Your task to perform on an android device: turn off notifications in google photos Image 0: 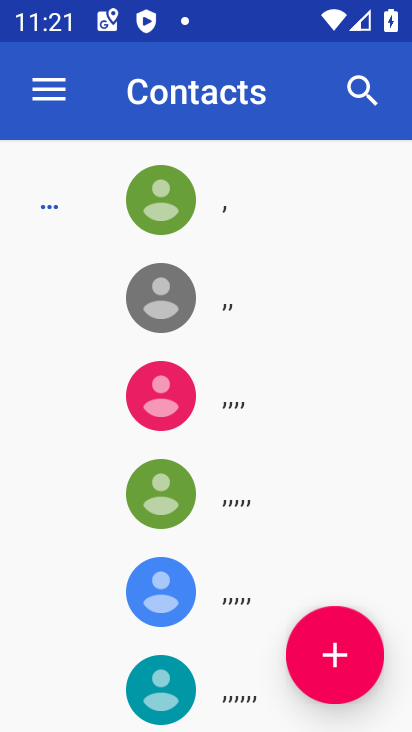
Step 0: drag from (217, 581) to (276, 356)
Your task to perform on an android device: turn off notifications in google photos Image 1: 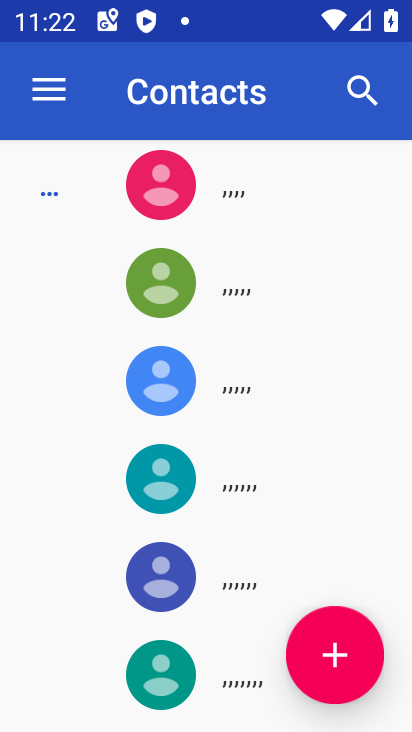
Step 1: press home button
Your task to perform on an android device: turn off notifications in google photos Image 2: 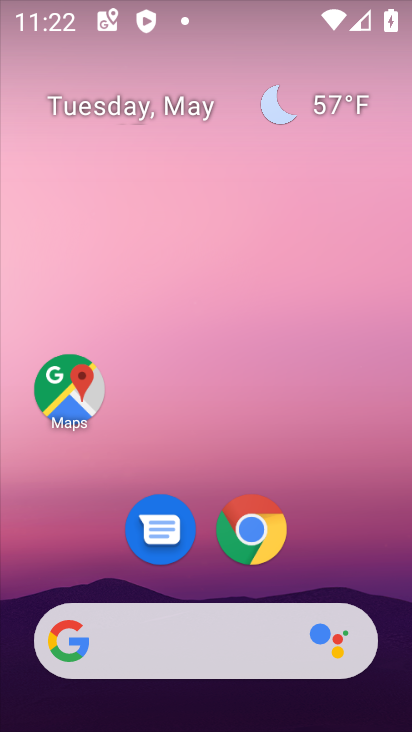
Step 2: drag from (214, 562) to (277, 104)
Your task to perform on an android device: turn off notifications in google photos Image 3: 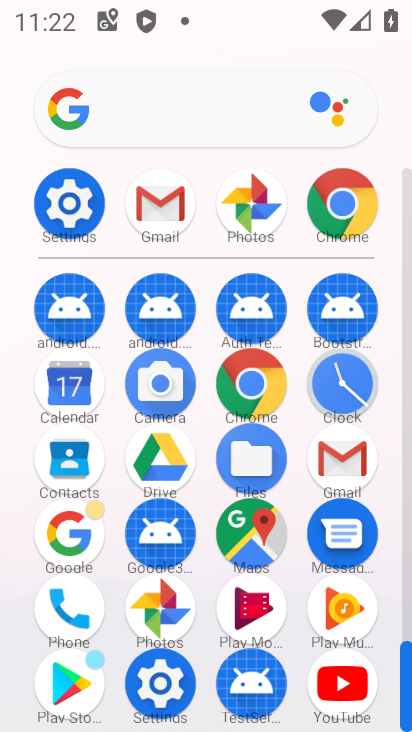
Step 3: click (57, 201)
Your task to perform on an android device: turn off notifications in google photos Image 4: 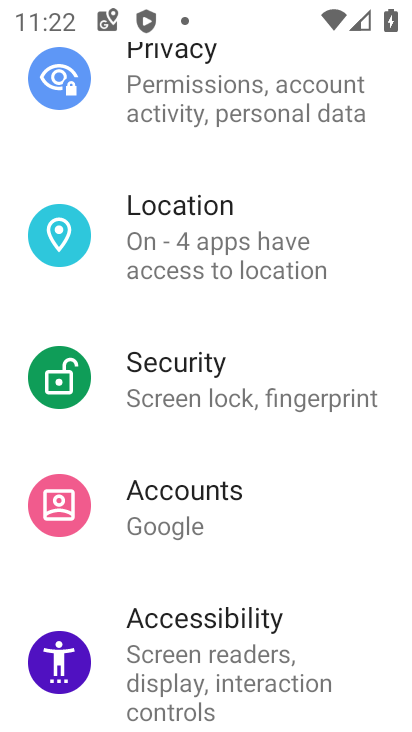
Step 4: drag from (118, 168) to (179, 724)
Your task to perform on an android device: turn off notifications in google photos Image 5: 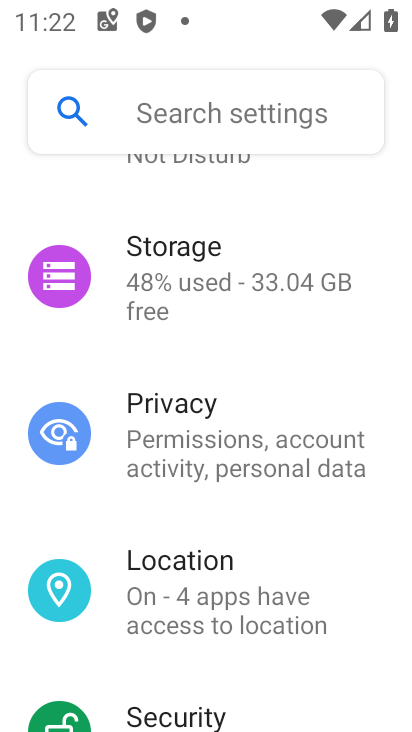
Step 5: drag from (119, 191) to (189, 620)
Your task to perform on an android device: turn off notifications in google photos Image 6: 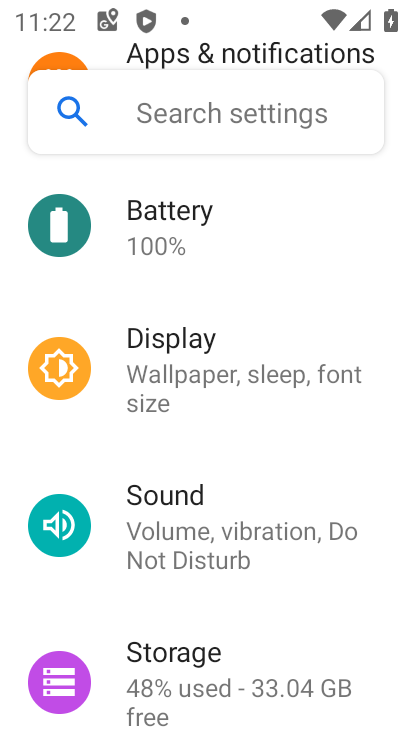
Step 6: drag from (99, 180) to (238, 594)
Your task to perform on an android device: turn off notifications in google photos Image 7: 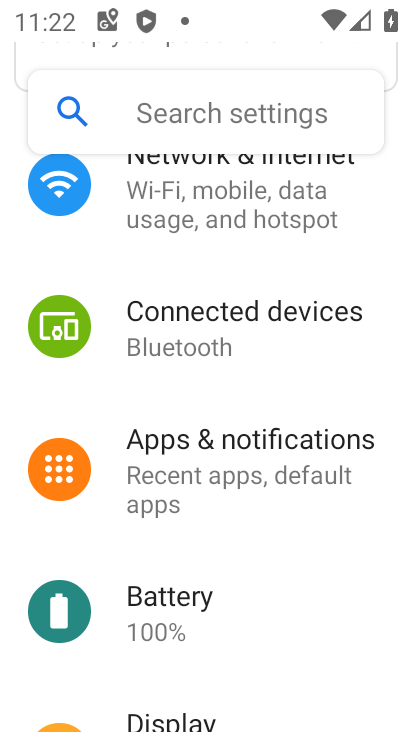
Step 7: click (245, 445)
Your task to perform on an android device: turn off notifications in google photos Image 8: 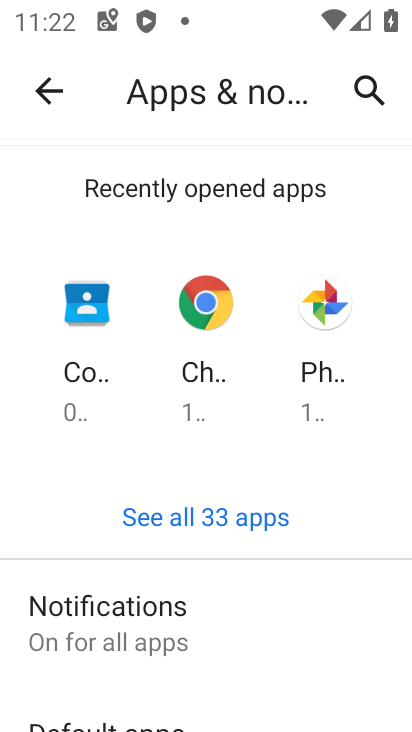
Step 8: click (215, 621)
Your task to perform on an android device: turn off notifications in google photos Image 9: 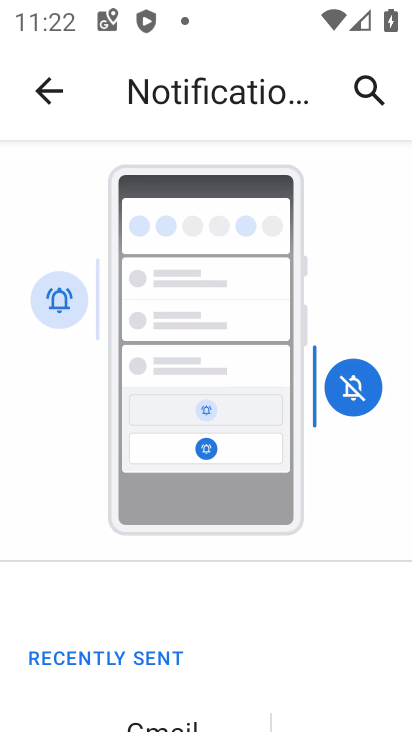
Step 9: drag from (141, 659) to (178, 295)
Your task to perform on an android device: turn off notifications in google photos Image 10: 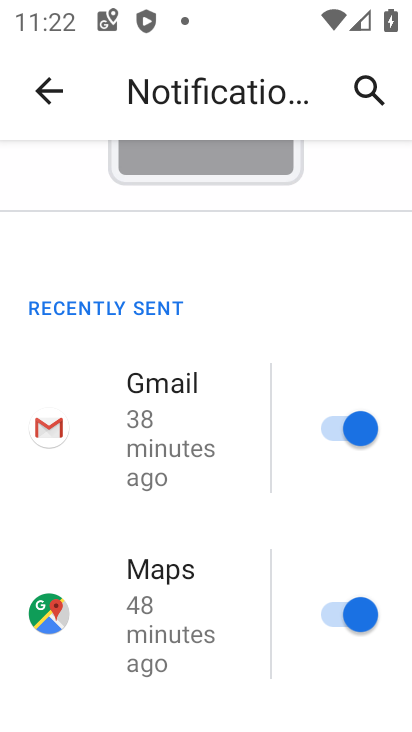
Step 10: drag from (198, 648) to (246, 218)
Your task to perform on an android device: turn off notifications in google photos Image 11: 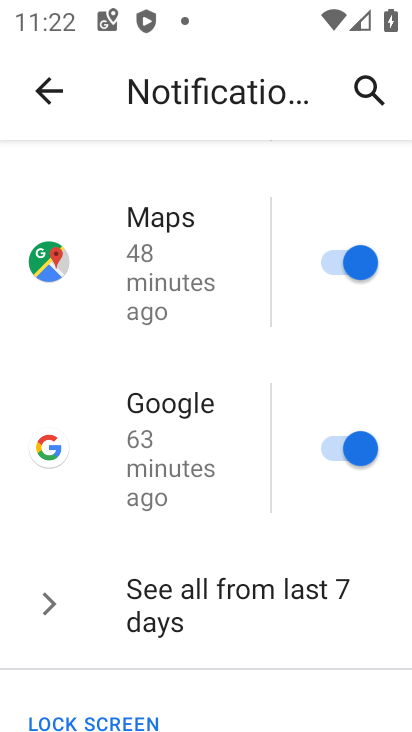
Step 11: drag from (108, 636) to (158, 434)
Your task to perform on an android device: turn off notifications in google photos Image 12: 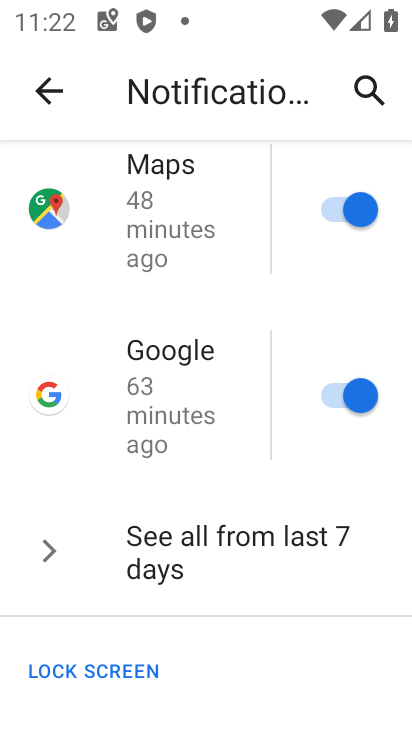
Step 12: click (236, 556)
Your task to perform on an android device: turn off notifications in google photos Image 13: 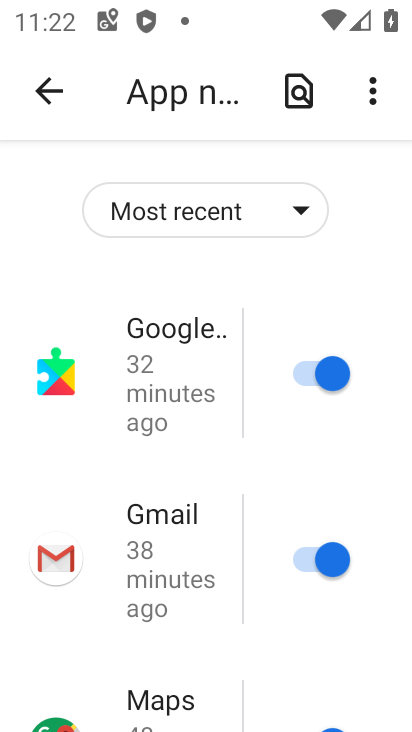
Step 13: drag from (131, 678) to (209, 78)
Your task to perform on an android device: turn off notifications in google photos Image 14: 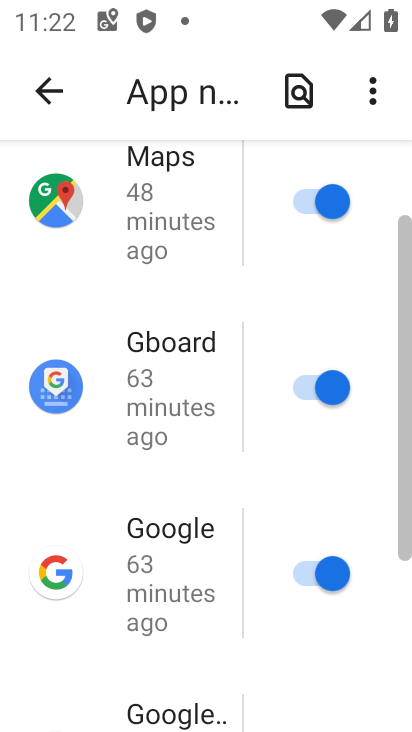
Step 14: drag from (125, 617) to (160, 126)
Your task to perform on an android device: turn off notifications in google photos Image 15: 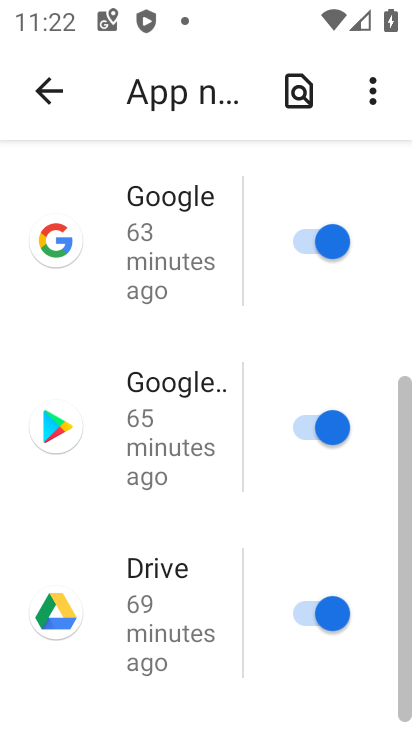
Step 15: drag from (108, 646) to (171, 337)
Your task to perform on an android device: turn off notifications in google photos Image 16: 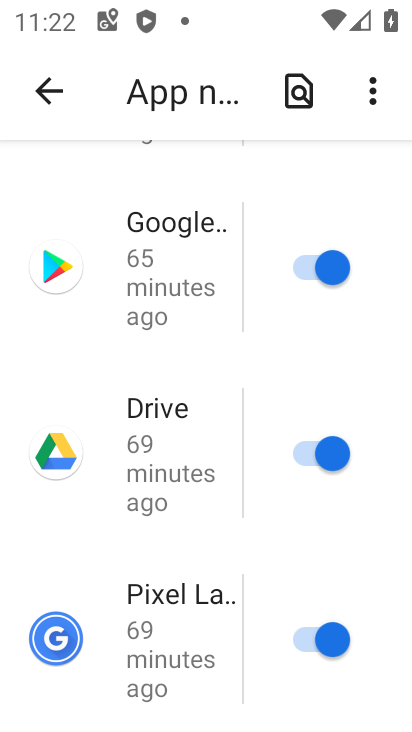
Step 16: drag from (189, 690) to (195, 398)
Your task to perform on an android device: turn off notifications in google photos Image 17: 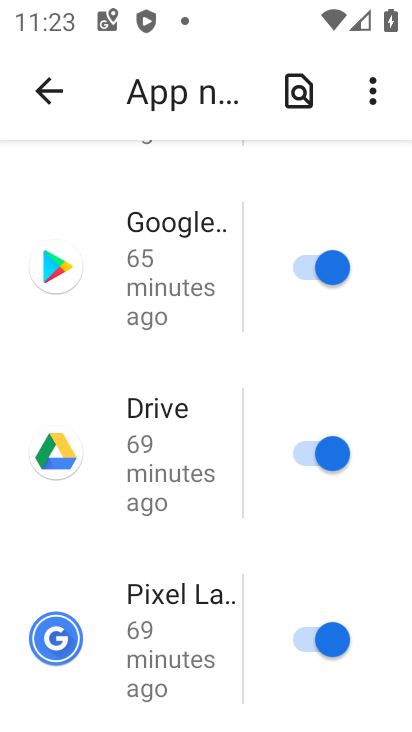
Step 17: click (30, 96)
Your task to perform on an android device: turn off notifications in google photos Image 18: 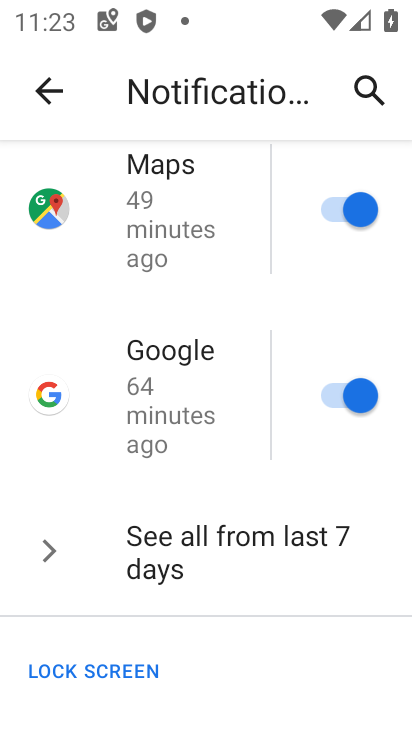
Step 18: click (39, 98)
Your task to perform on an android device: turn off notifications in google photos Image 19: 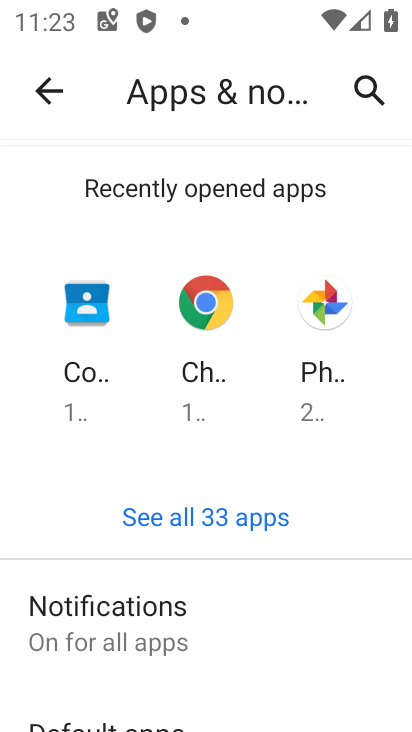
Step 19: click (320, 324)
Your task to perform on an android device: turn off notifications in google photos Image 20: 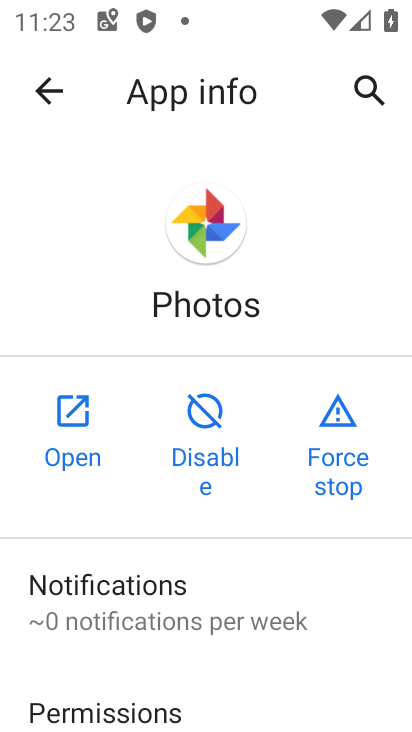
Step 20: click (152, 590)
Your task to perform on an android device: turn off notifications in google photos Image 21: 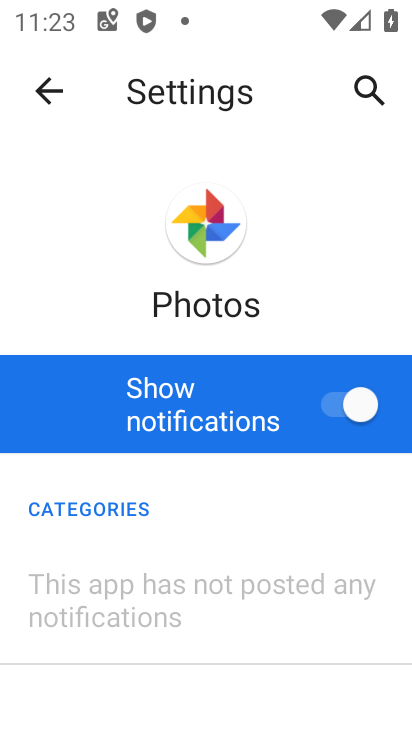
Step 21: click (341, 416)
Your task to perform on an android device: turn off notifications in google photos Image 22: 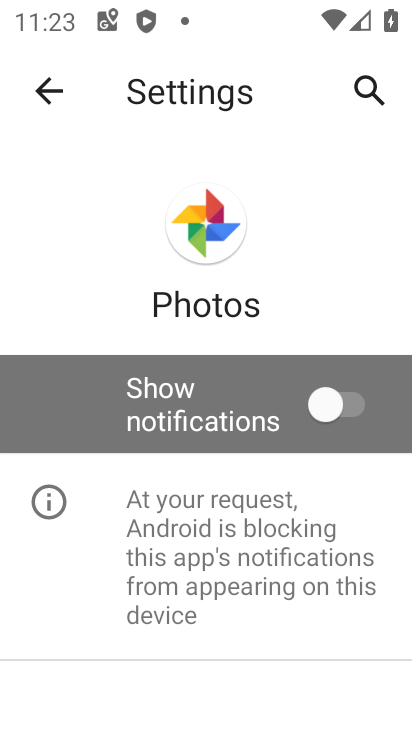
Step 22: task complete